Your task to perform on an android device: set the stopwatch Image 0: 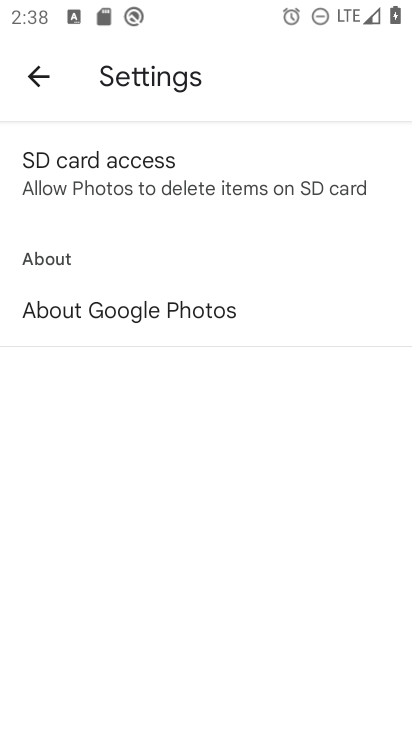
Step 0: press home button
Your task to perform on an android device: set the stopwatch Image 1: 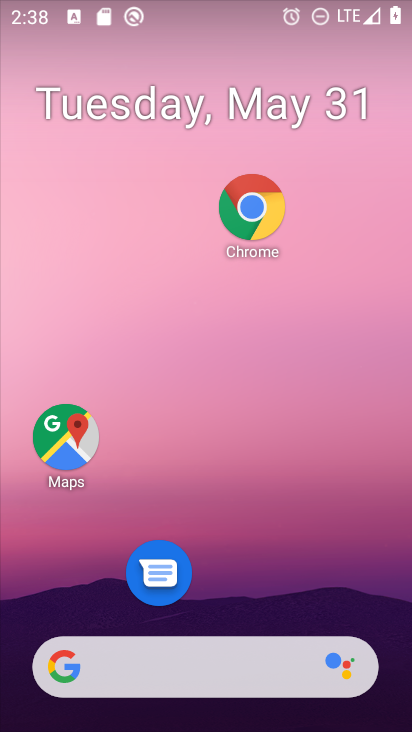
Step 1: drag from (243, 607) to (308, 253)
Your task to perform on an android device: set the stopwatch Image 2: 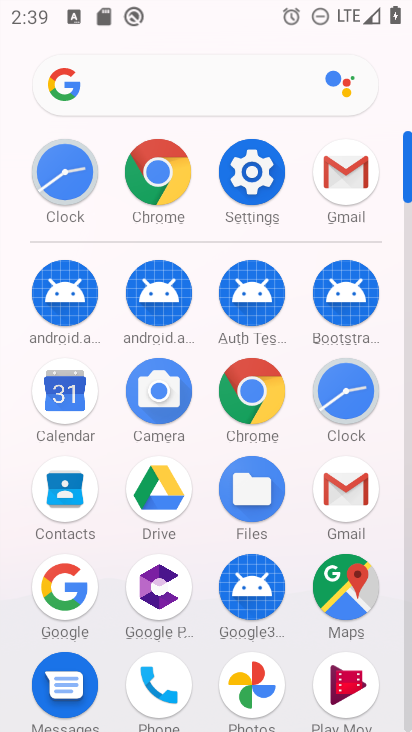
Step 2: click (345, 402)
Your task to perform on an android device: set the stopwatch Image 3: 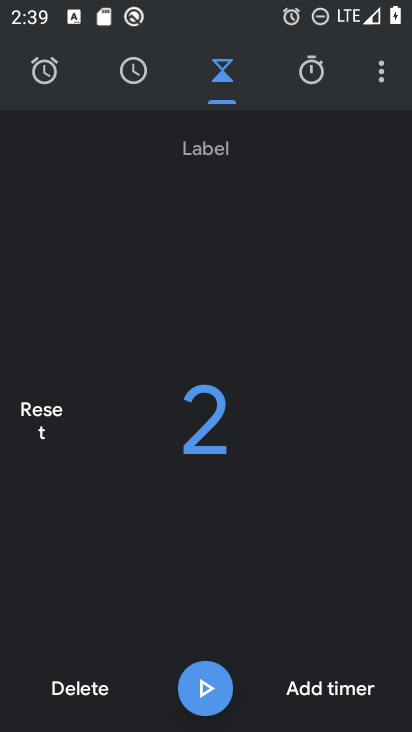
Step 3: click (316, 68)
Your task to perform on an android device: set the stopwatch Image 4: 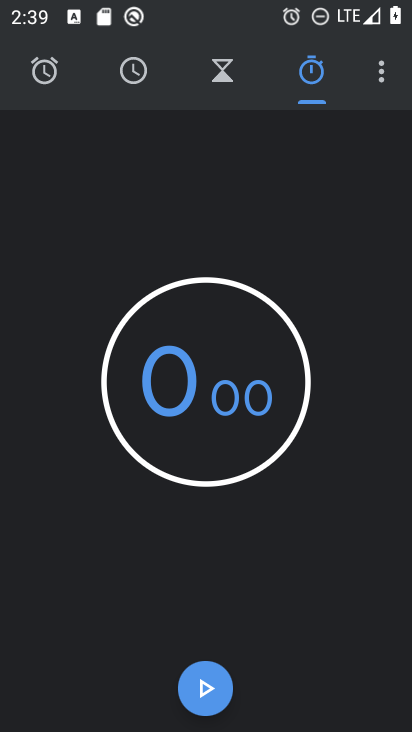
Step 4: click (209, 688)
Your task to perform on an android device: set the stopwatch Image 5: 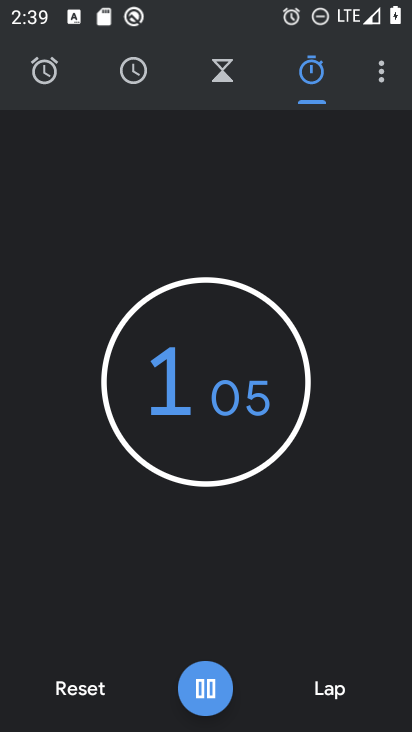
Step 5: task complete